Your task to perform on an android device: Open my contact list Image 0: 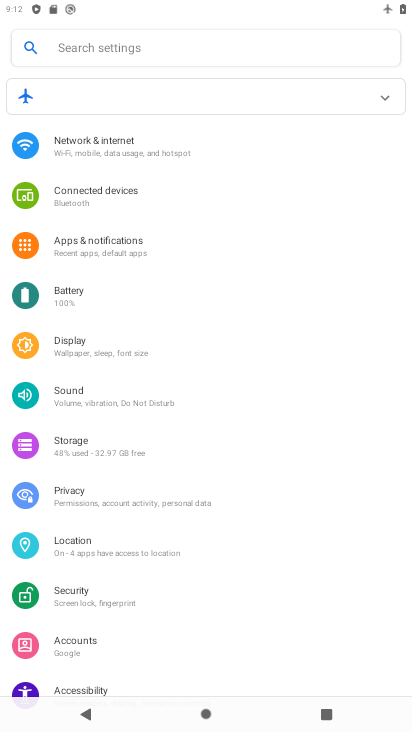
Step 0: press home button
Your task to perform on an android device: Open my contact list Image 1: 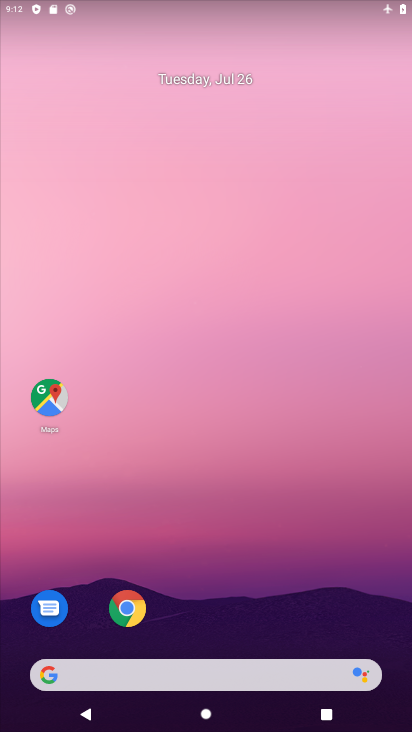
Step 1: drag from (189, 623) to (191, 131)
Your task to perform on an android device: Open my contact list Image 2: 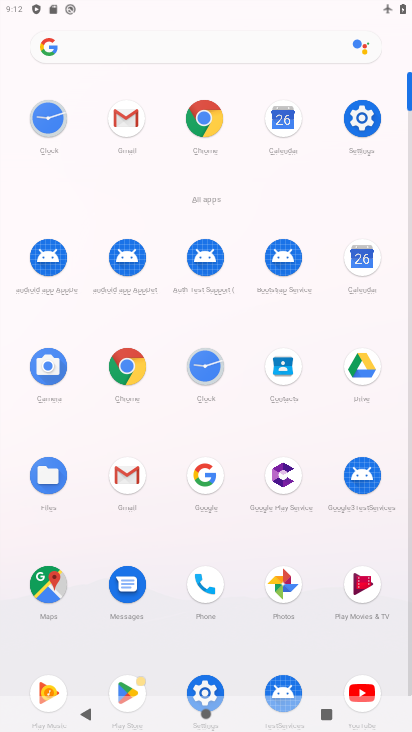
Step 2: click (271, 374)
Your task to perform on an android device: Open my contact list Image 3: 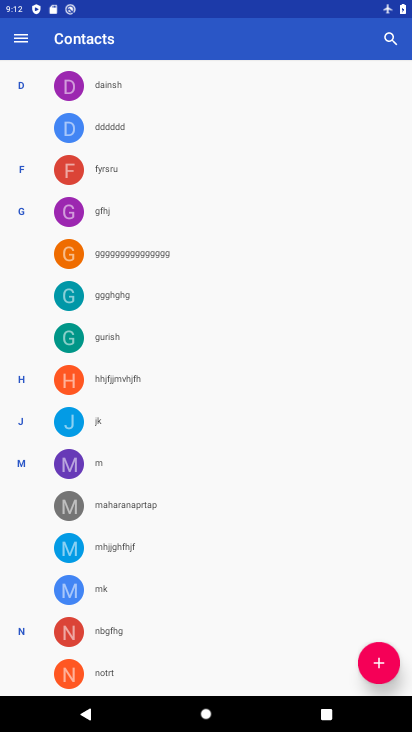
Step 3: task complete